Your task to perform on an android device: turn on airplane mode Image 0: 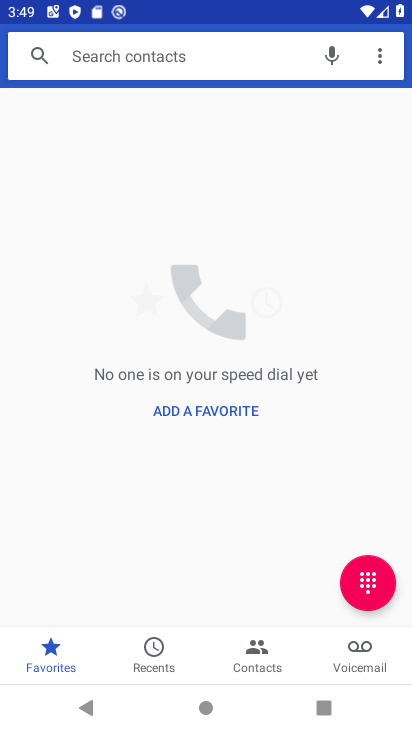
Step 0: press home button
Your task to perform on an android device: turn on airplane mode Image 1: 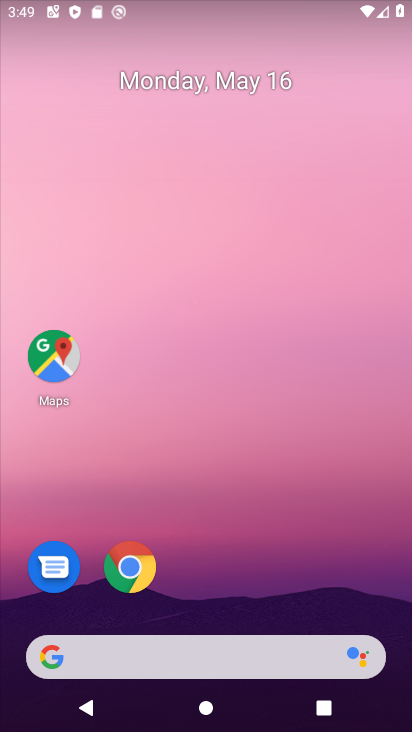
Step 1: drag from (270, 4) to (282, 605)
Your task to perform on an android device: turn on airplane mode Image 2: 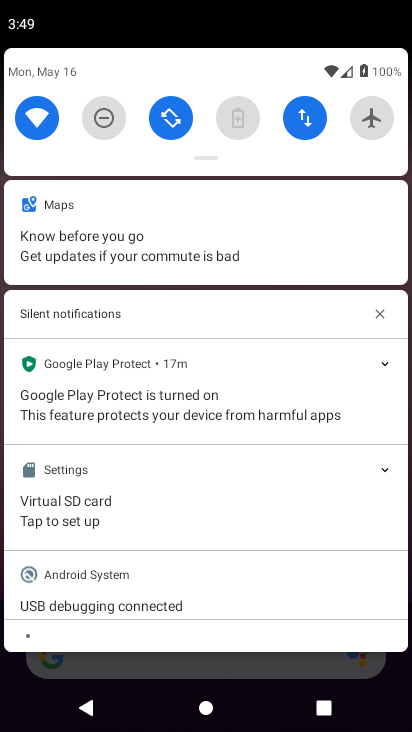
Step 2: drag from (225, 146) to (132, 699)
Your task to perform on an android device: turn on airplane mode Image 3: 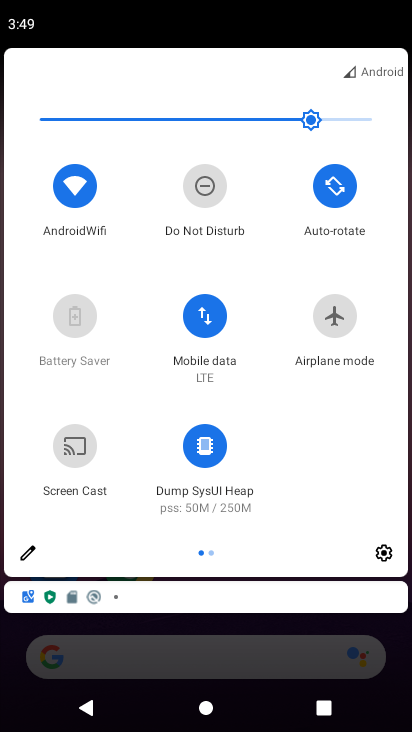
Step 3: click (329, 312)
Your task to perform on an android device: turn on airplane mode Image 4: 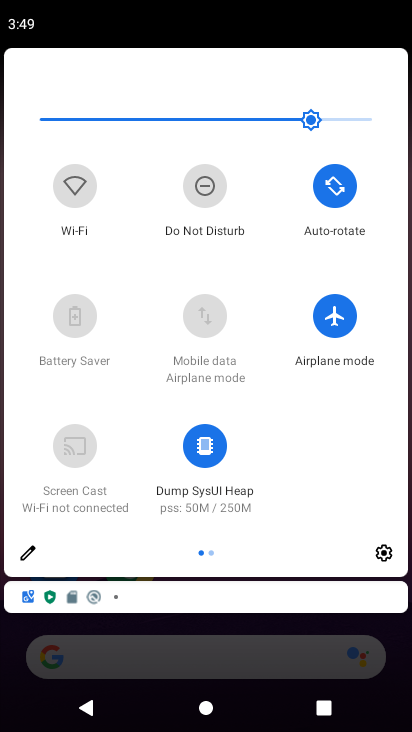
Step 4: task complete